Your task to perform on an android device: empty trash in google photos Image 0: 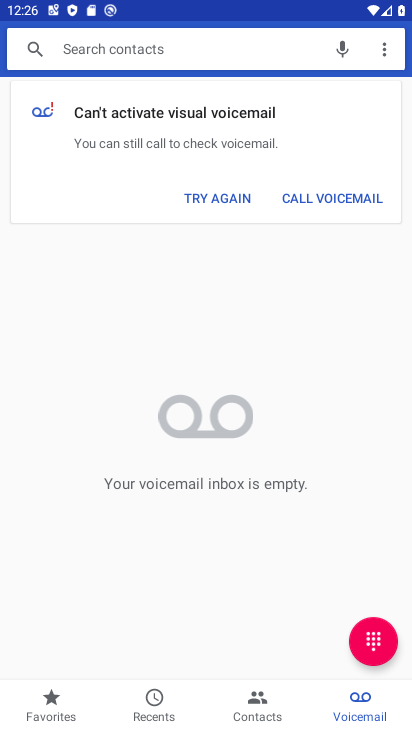
Step 0: press home button
Your task to perform on an android device: empty trash in google photos Image 1: 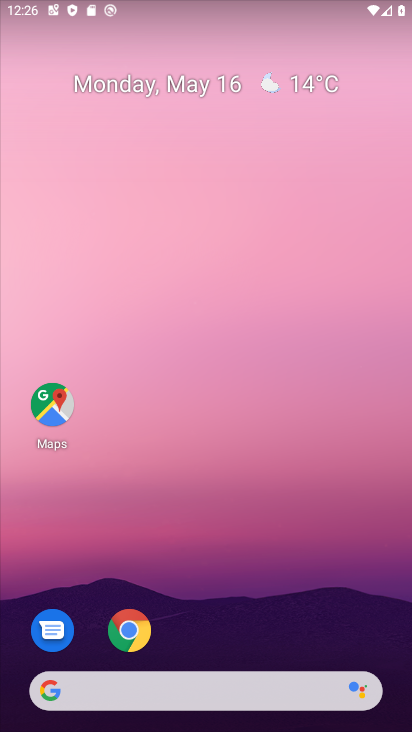
Step 1: drag from (353, 596) to (330, 65)
Your task to perform on an android device: empty trash in google photos Image 2: 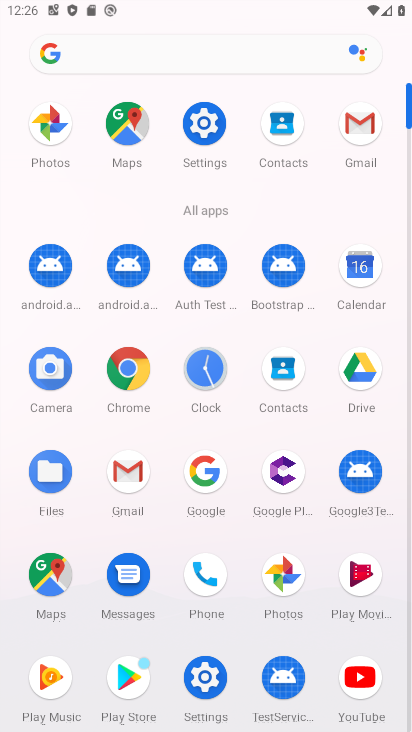
Step 2: click (283, 582)
Your task to perform on an android device: empty trash in google photos Image 3: 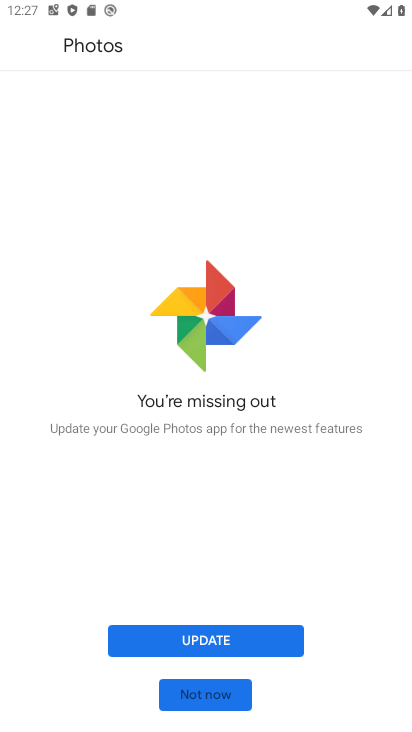
Step 3: click (239, 693)
Your task to perform on an android device: empty trash in google photos Image 4: 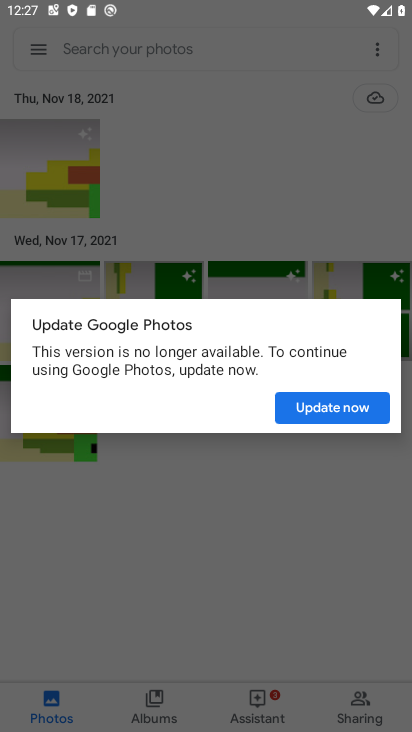
Step 4: click (299, 407)
Your task to perform on an android device: empty trash in google photos Image 5: 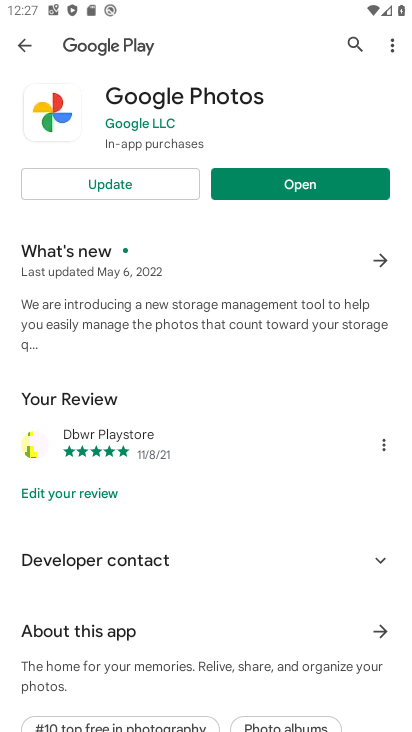
Step 5: click (309, 185)
Your task to perform on an android device: empty trash in google photos Image 6: 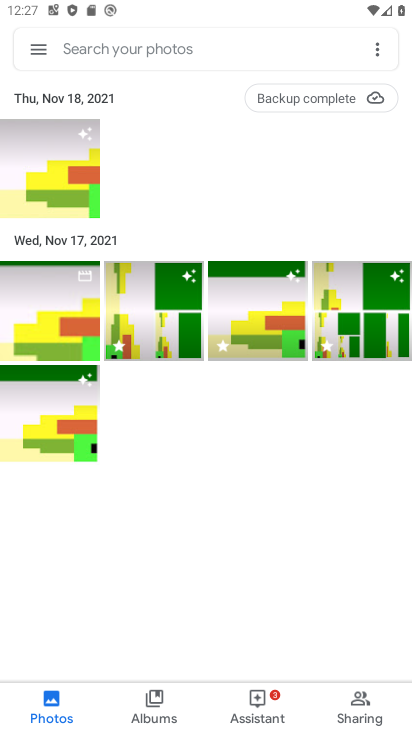
Step 6: click (39, 57)
Your task to perform on an android device: empty trash in google photos Image 7: 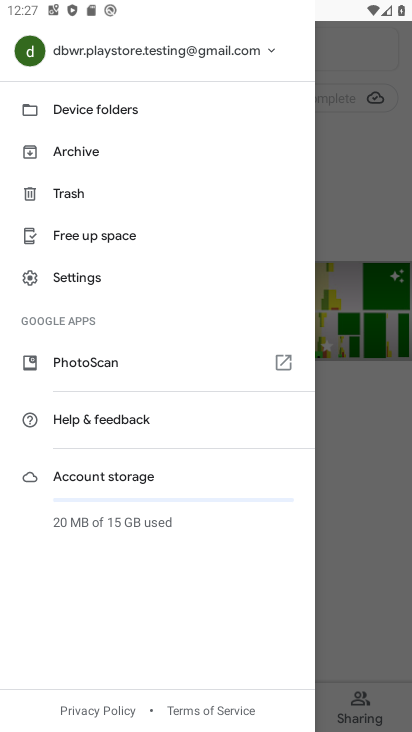
Step 7: click (91, 191)
Your task to perform on an android device: empty trash in google photos Image 8: 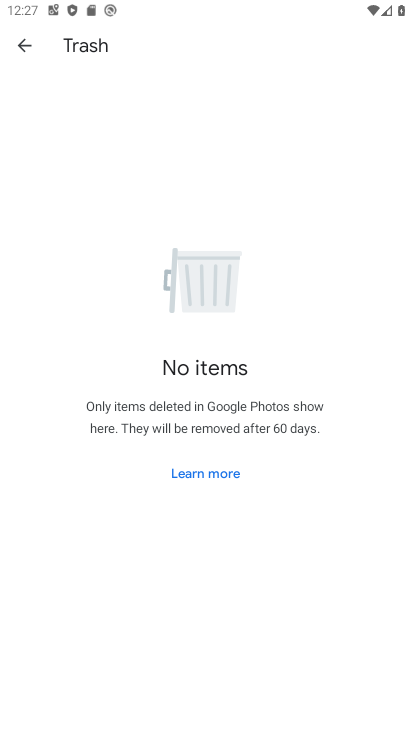
Step 8: task complete